Your task to perform on an android device: turn notification dots off Image 0: 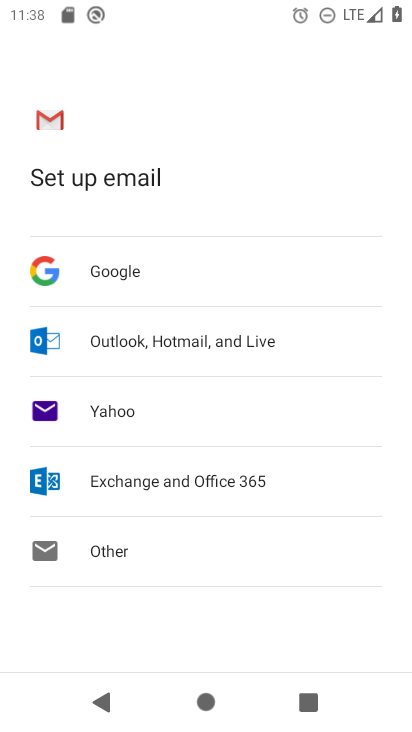
Step 0: press home button
Your task to perform on an android device: turn notification dots off Image 1: 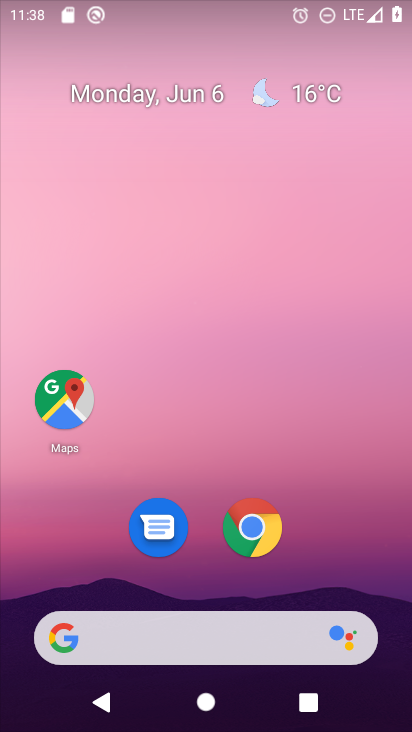
Step 1: drag from (358, 554) to (343, 198)
Your task to perform on an android device: turn notification dots off Image 2: 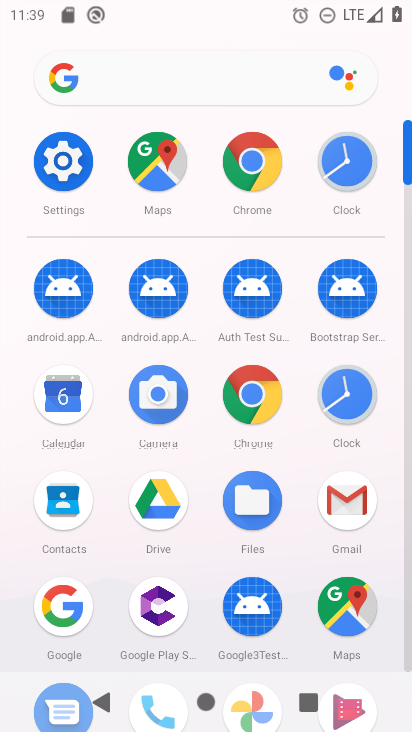
Step 2: click (78, 181)
Your task to perform on an android device: turn notification dots off Image 3: 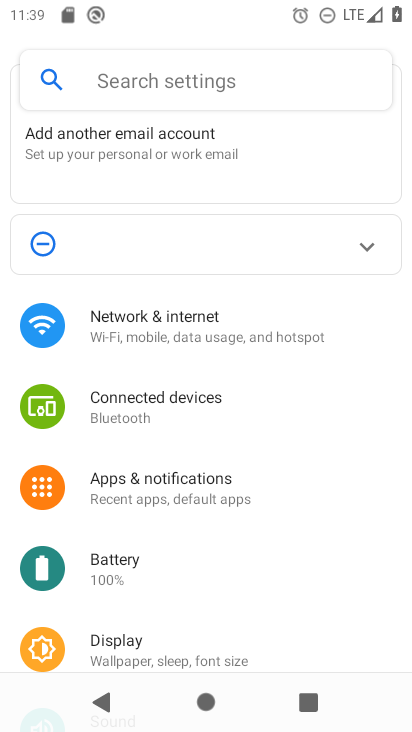
Step 3: drag from (322, 440) to (314, 325)
Your task to perform on an android device: turn notification dots off Image 4: 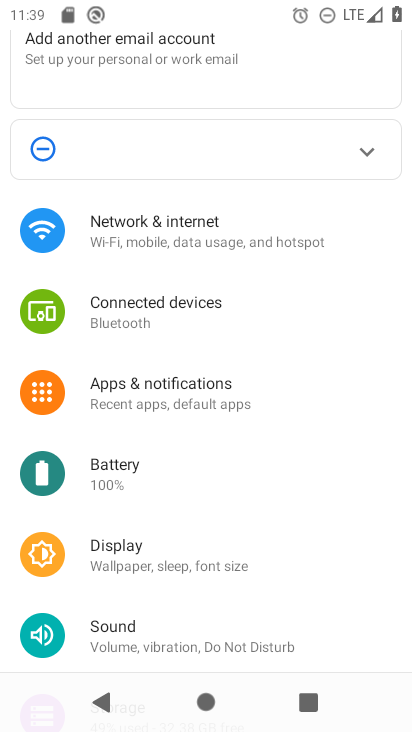
Step 4: drag from (309, 435) to (316, 337)
Your task to perform on an android device: turn notification dots off Image 5: 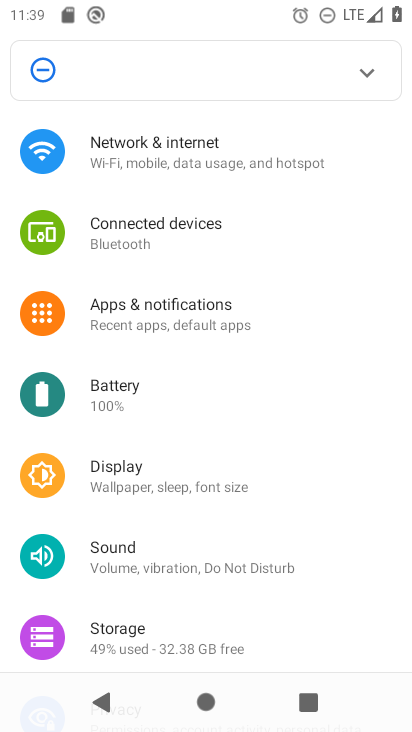
Step 5: drag from (326, 451) to (325, 323)
Your task to perform on an android device: turn notification dots off Image 6: 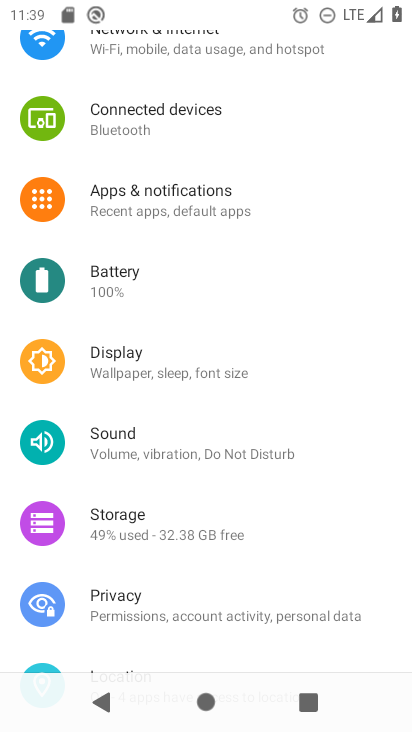
Step 6: drag from (326, 435) to (326, 336)
Your task to perform on an android device: turn notification dots off Image 7: 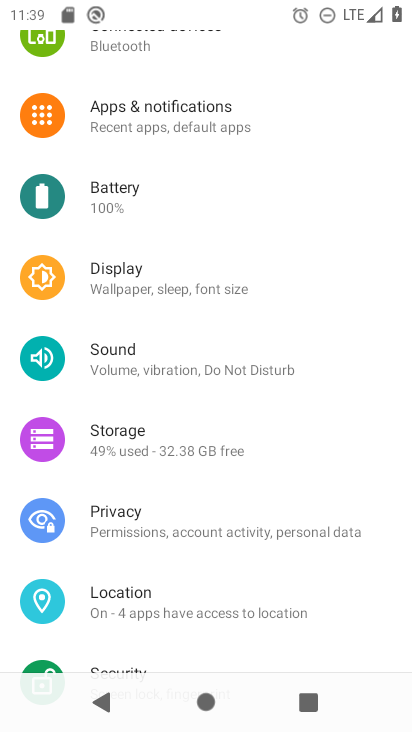
Step 7: click (230, 146)
Your task to perform on an android device: turn notification dots off Image 8: 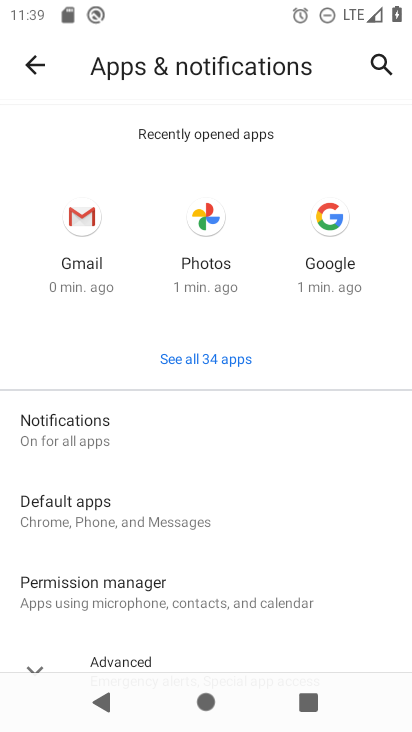
Step 8: click (138, 444)
Your task to perform on an android device: turn notification dots off Image 9: 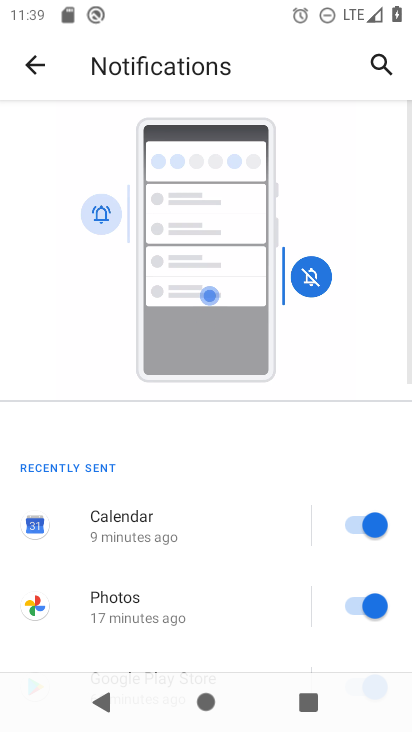
Step 9: drag from (280, 482) to (292, 354)
Your task to perform on an android device: turn notification dots off Image 10: 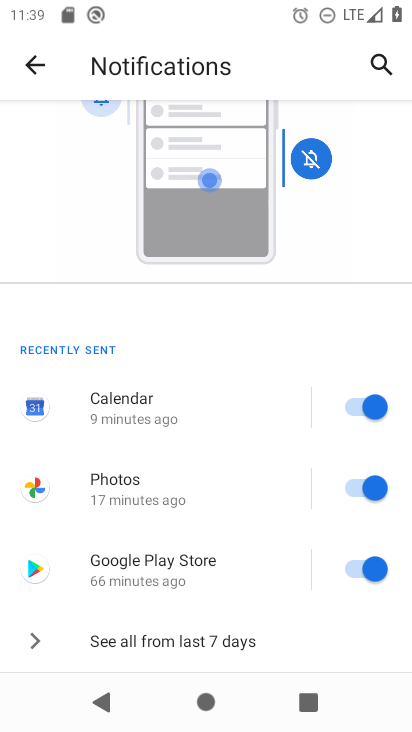
Step 10: drag from (273, 551) to (262, 400)
Your task to perform on an android device: turn notification dots off Image 11: 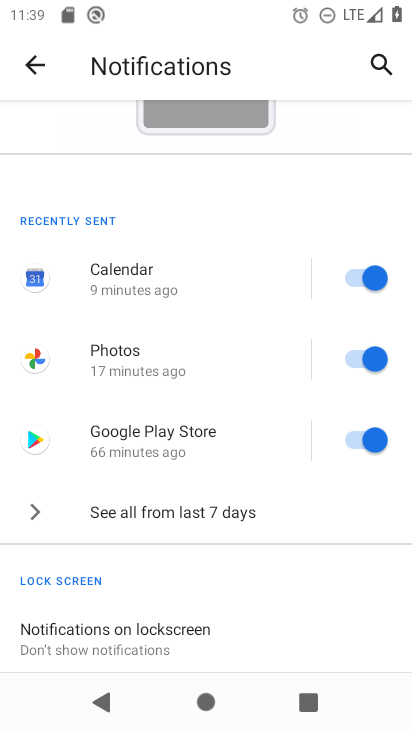
Step 11: drag from (261, 562) to (258, 334)
Your task to perform on an android device: turn notification dots off Image 12: 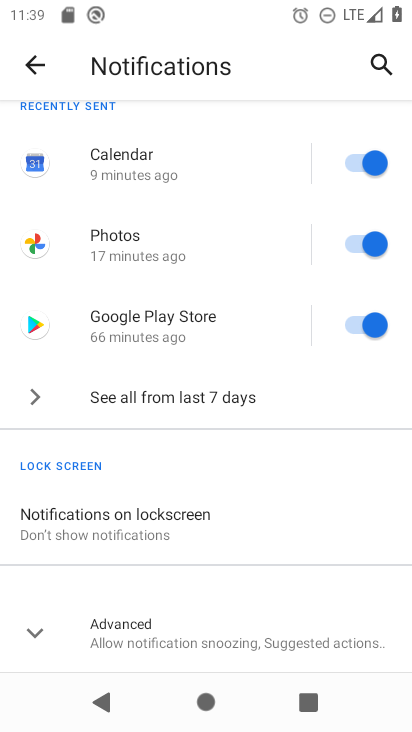
Step 12: drag from (233, 580) to (264, 398)
Your task to perform on an android device: turn notification dots off Image 13: 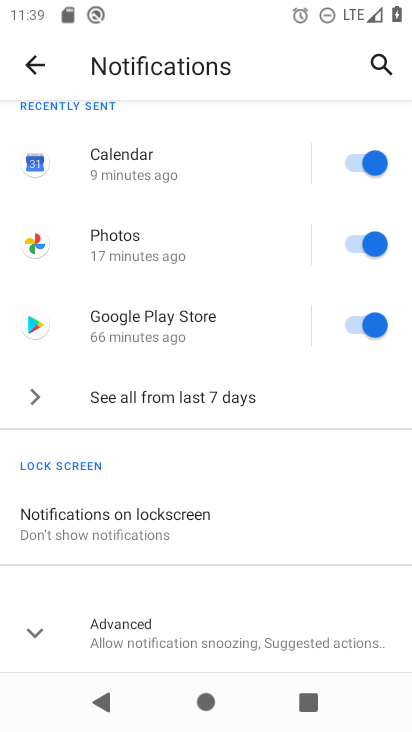
Step 13: click (185, 636)
Your task to perform on an android device: turn notification dots off Image 14: 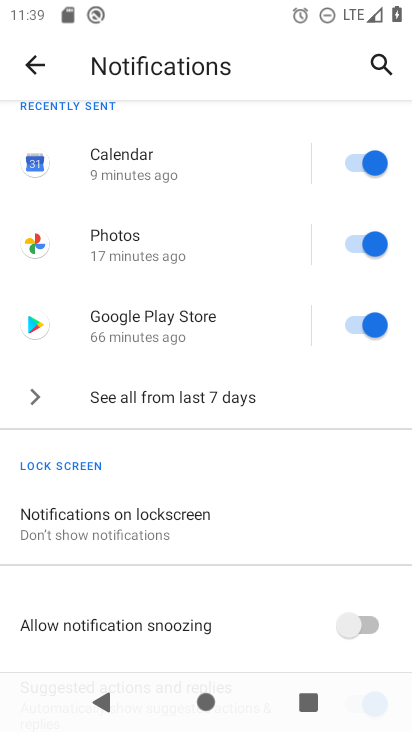
Step 14: task complete